Your task to perform on an android device: Open the Play Movies app and select the watchlist tab. Image 0: 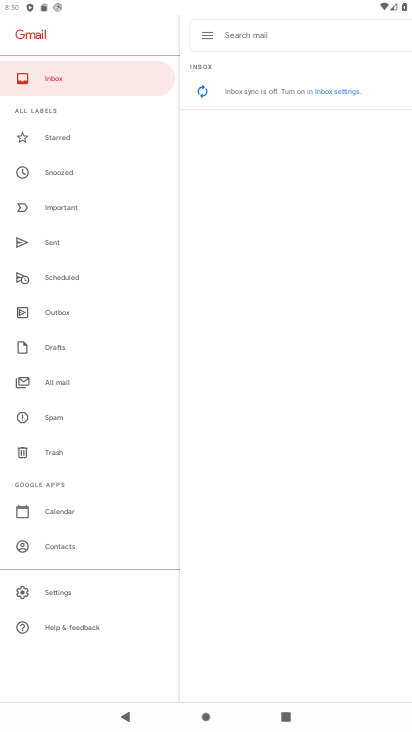
Step 0: press home button
Your task to perform on an android device: Open the Play Movies app and select the watchlist tab. Image 1: 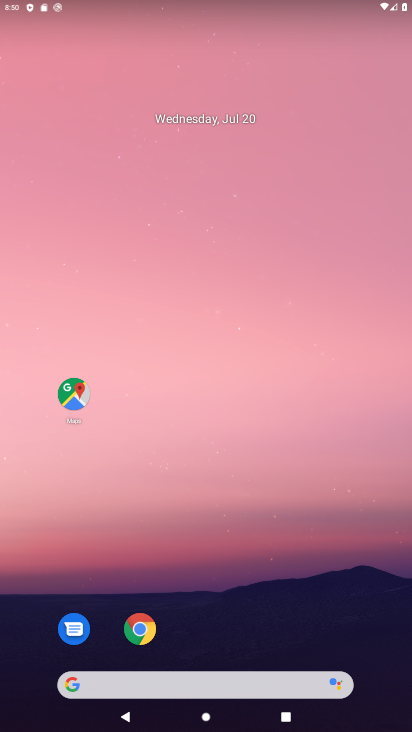
Step 1: drag from (388, 670) to (346, 131)
Your task to perform on an android device: Open the Play Movies app and select the watchlist tab. Image 2: 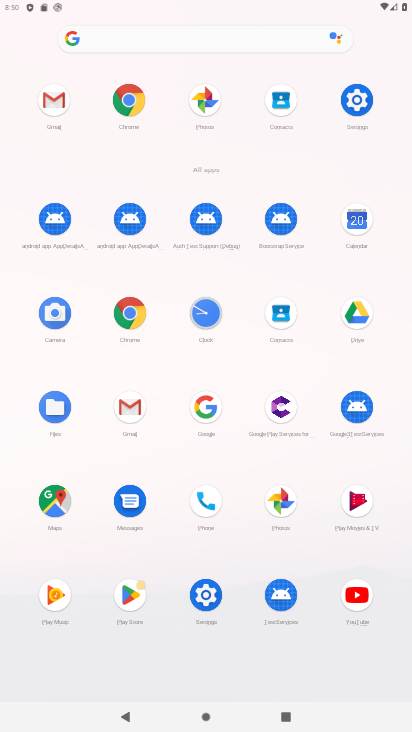
Step 2: click (354, 497)
Your task to perform on an android device: Open the Play Movies app and select the watchlist tab. Image 3: 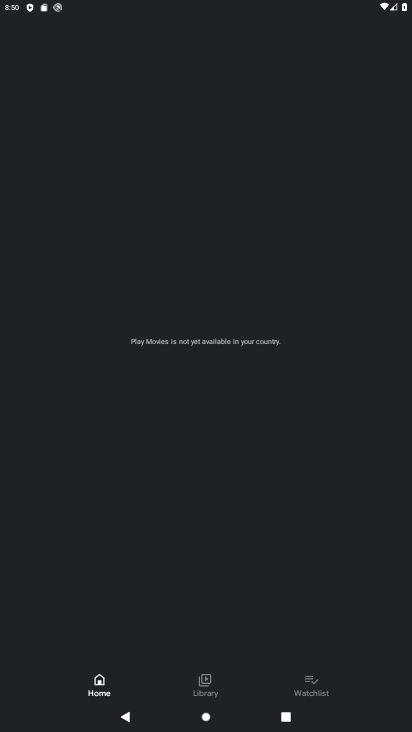
Step 3: click (317, 682)
Your task to perform on an android device: Open the Play Movies app and select the watchlist tab. Image 4: 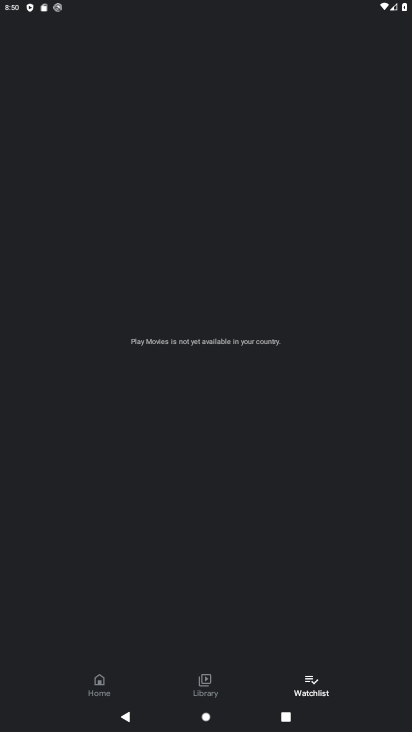
Step 4: task complete